Your task to perform on an android device: turn off notifications settings in the gmail app Image 0: 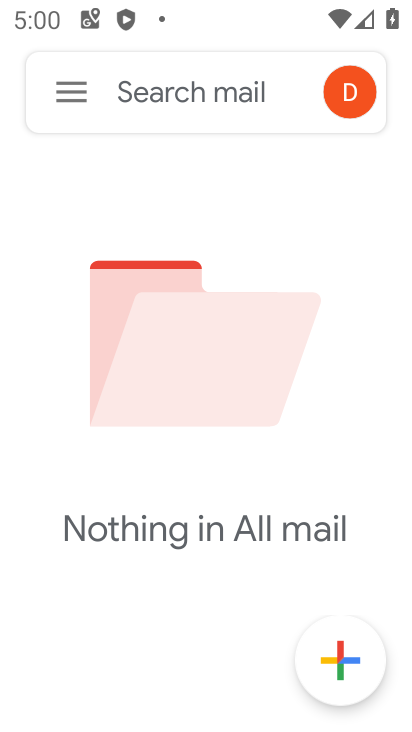
Step 0: press home button
Your task to perform on an android device: turn off notifications settings in the gmail app Image 1: 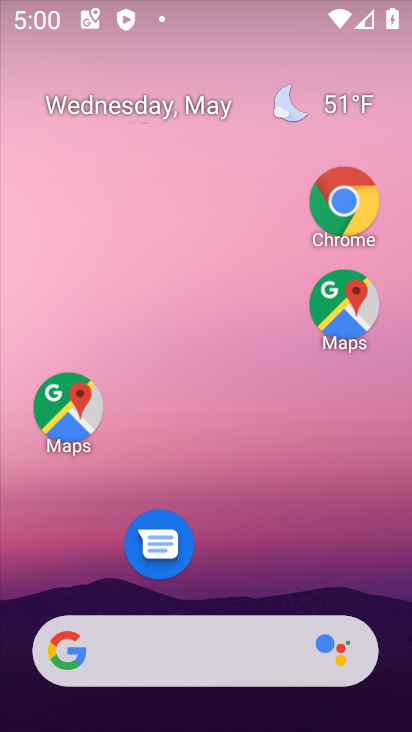
Step 1: drag from (242, 577) to (299, 143)
Your task to perform on an android device: turn off notifications settings in the gmail app Image 2: 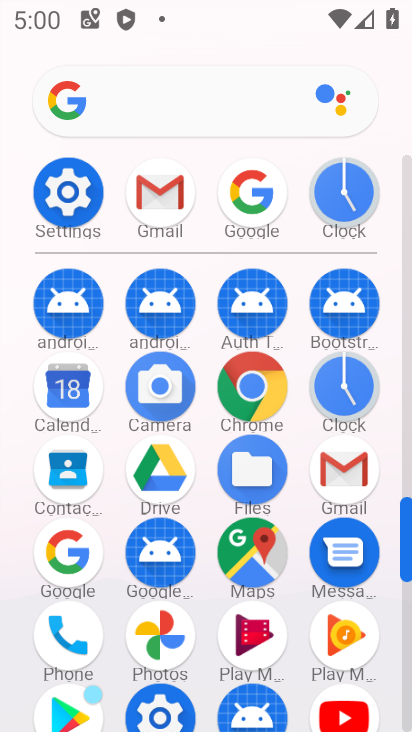
Step 2: click (154, 207)
Your task to perform on an android device: turn off notifications settings in the gmail app Image 3: 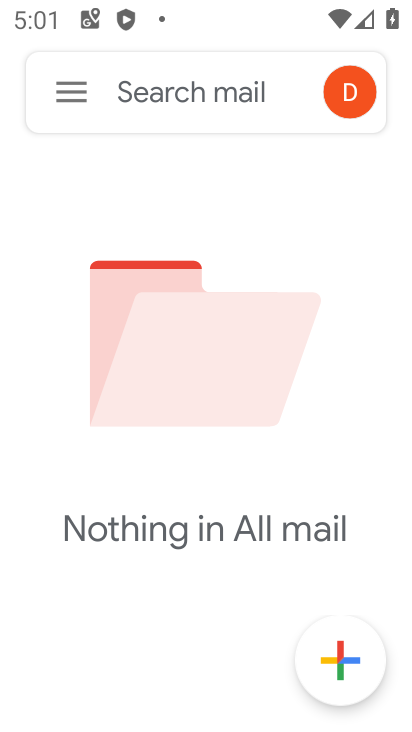
Step 3: click (67, 95)
Your task to perform on an android device: turn off notifications settings in the gmail app Image 4: 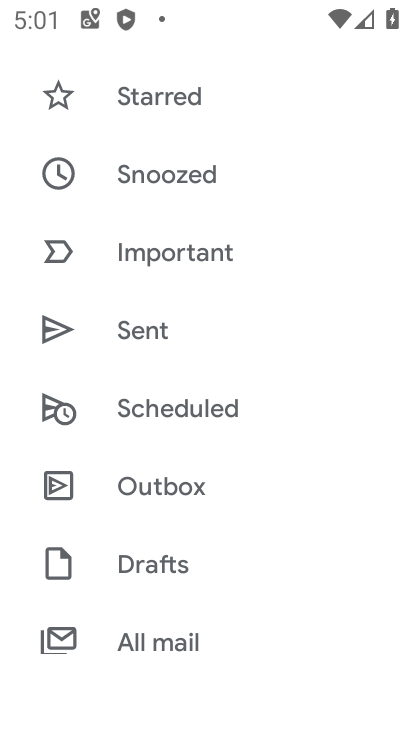
Step 4: drag from (229, 551) to (236, 116)
Your task to perform on an android device: turn off notifications settings in the gmail app Image 5: 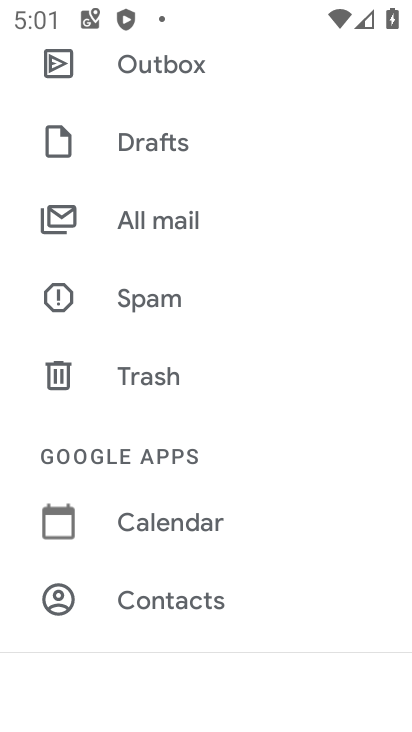
Step 5: drag from (211, 549) to (222, 265)
Your task to perform on an android device: turn off notifications settings in the gmail app Image 6: 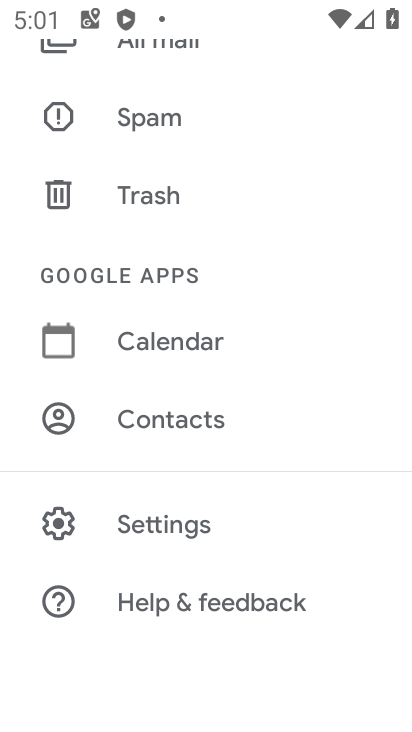
Step 6: click (170, 530)
Your task to perform on an android device: turn off notifications settings in the gmail app Image 7: 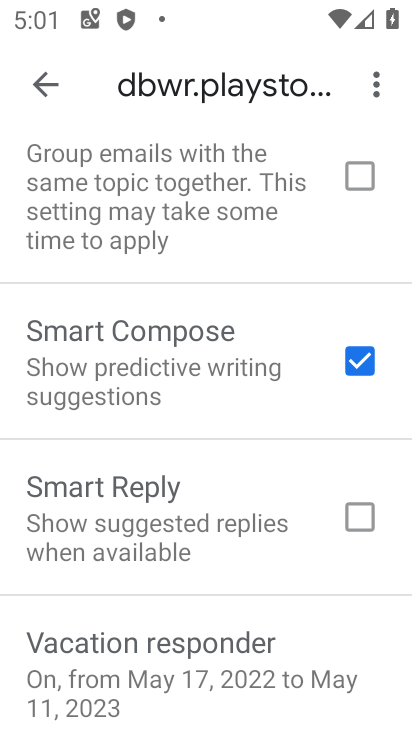
Step 7: click (39, 86)
Your task to perform on an android device: turn off notifications settings in the gmail app Image 8: 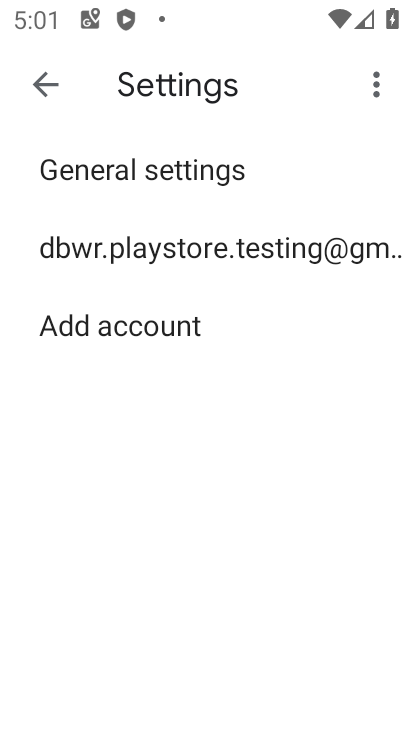
Step 8: click (38, 87)
Your task to perform on an android device: turn off notifications settings in the gmail app Image 9: 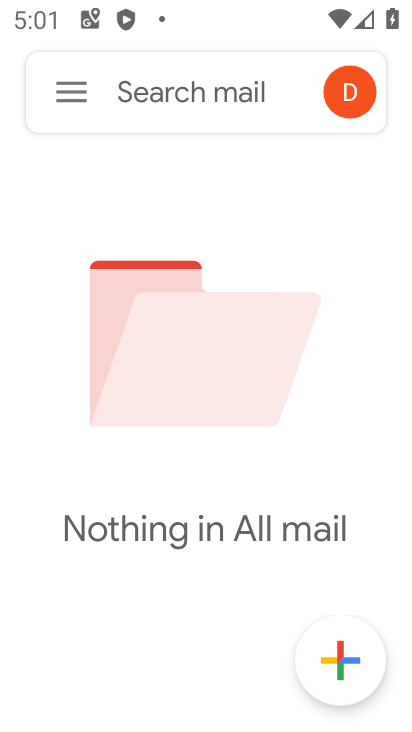
Step 9: click (72, 92)
Your task to perform on an android device: turn off notifications settings in the gmail app Image 10: 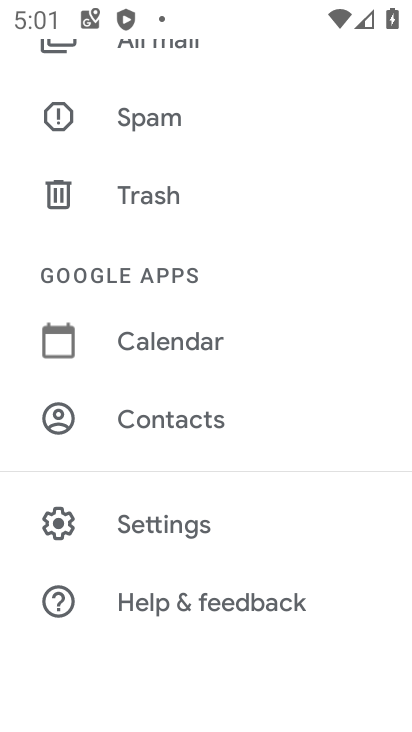
Step 10: click (176, 523)
Your task to perform on an android device: turn off notifications settings in the gmail app Image 11: 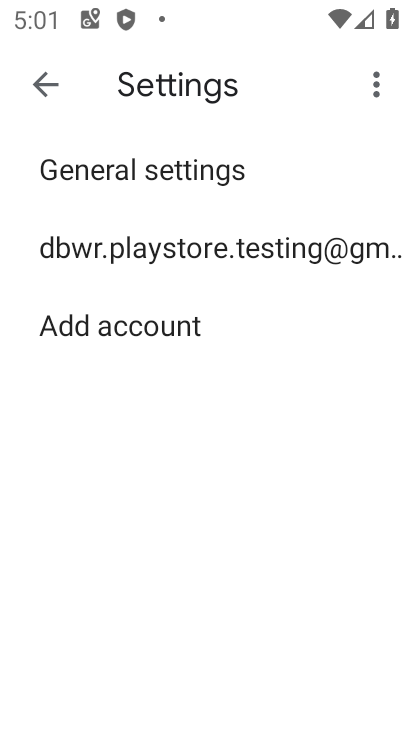
Step 11: click (163, 265)
Your task to perform on an android device: turn off notifications settings in the gmail app Image 12: 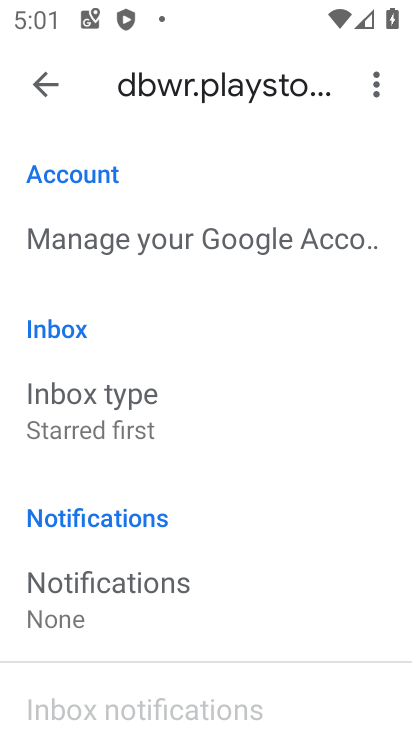
Step 12: drag from (195, 589) to (211, 242)
Your task to perform on an android device: turn off notifications settings in the gmail app Image 13: 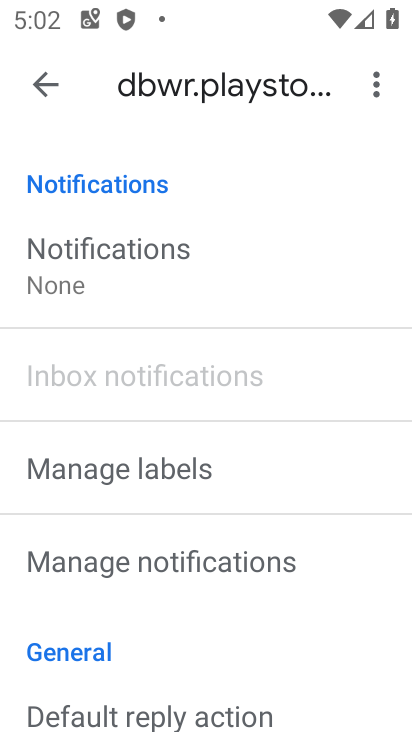
Step 13: click (152, 269)
Your task to perform on an android device: turn off notifications settings in the gmail app Image 14: 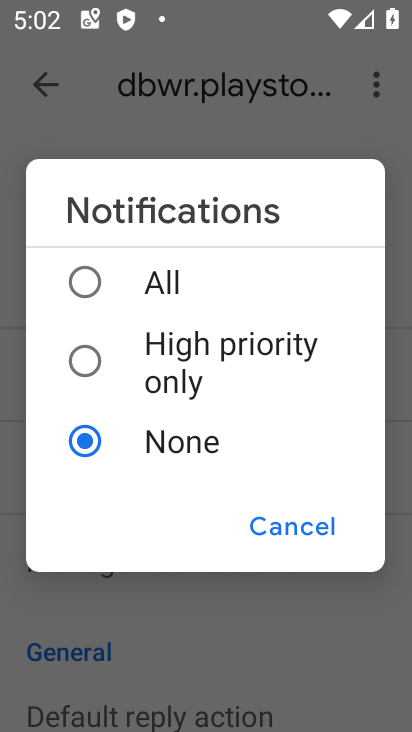
Step 14: task complete